Your task to perform on an android device: Go to eBay Image 0: 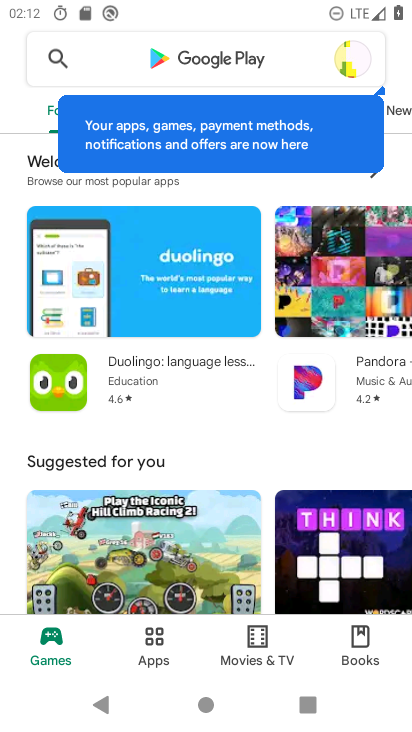
Step 0: press home button
Your task to perform on an android device: Go to eBay Image 1: 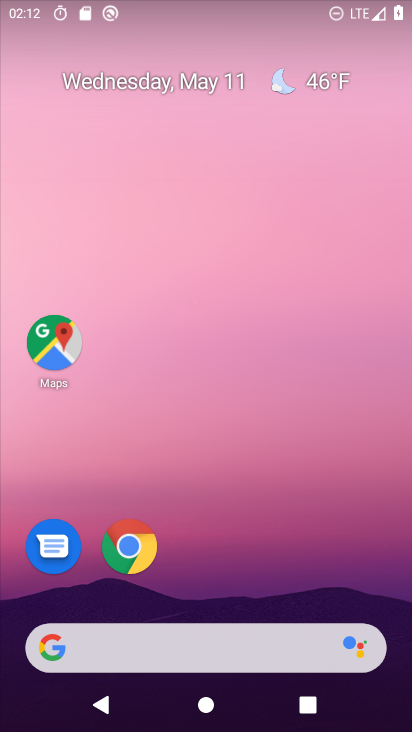
Step 1: drag from (242, 686) to (260, 317)
Your task to perform on an android device: Go to eBay Image 2: 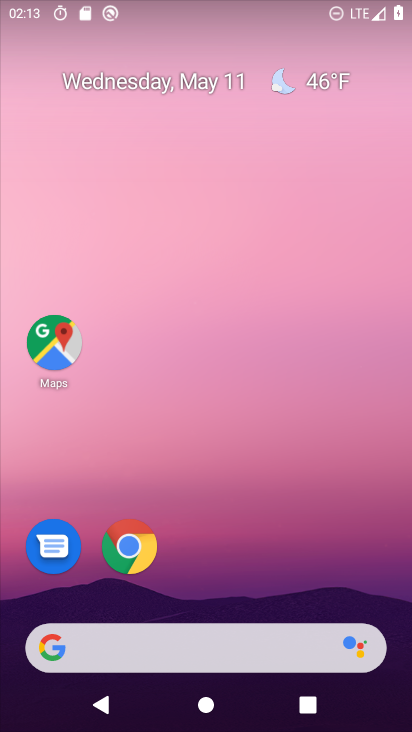
Step 2: click (141, 551)
Your task to perform on an android device: Go to eBay Image 3: 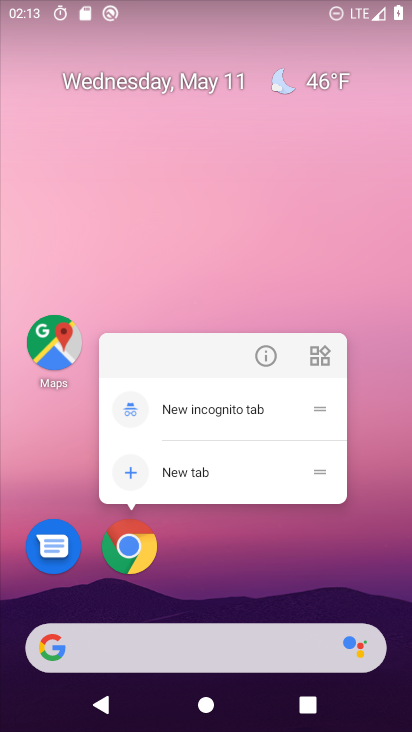
Step 3: click (197, 568)
Your task to perform on an android device: Go to eBay Image 4: 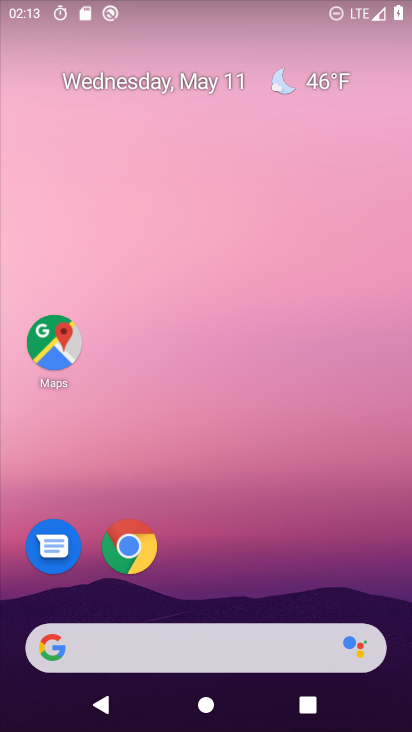
Step 4: click (120, 552)
Your task to perform on an android device: Go to eBay Image 5: 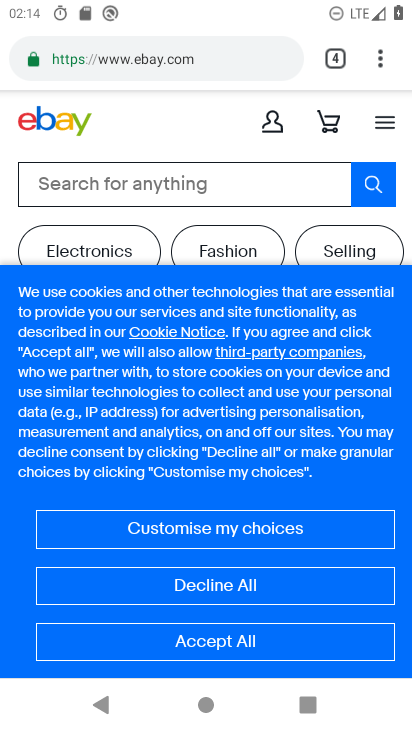
Step 5: click (175, 58)
Your task to perform on an android device: Go to eBay Image 6: 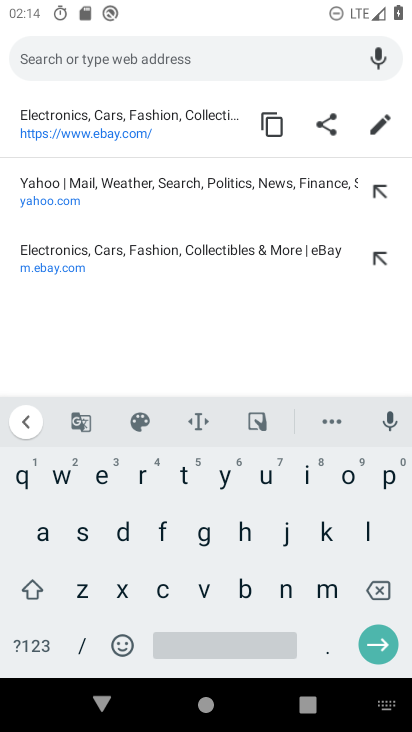
Step 6: click (149, 124)
Your task to perform on an android device: Go to eBay Image 7: 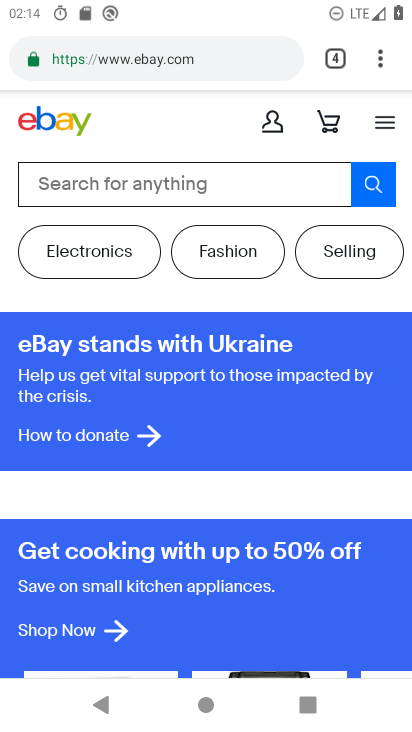
Step 7: task complete